Your task to perform on an android device: turn off airplane mode Image 0: 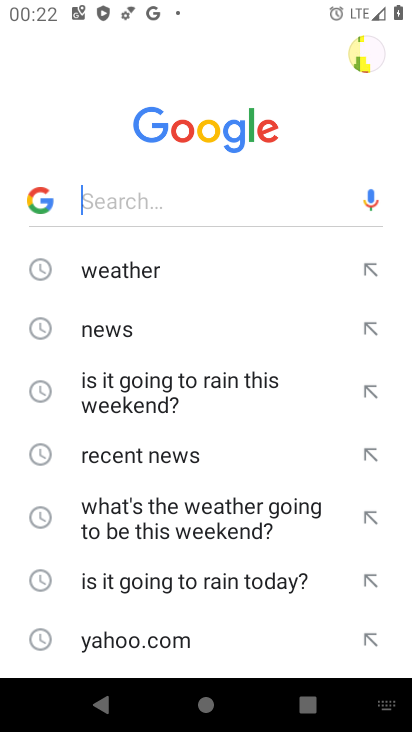
Step 0: press home button
Your task to perform on an android device: turn off airplane mode Image 1: 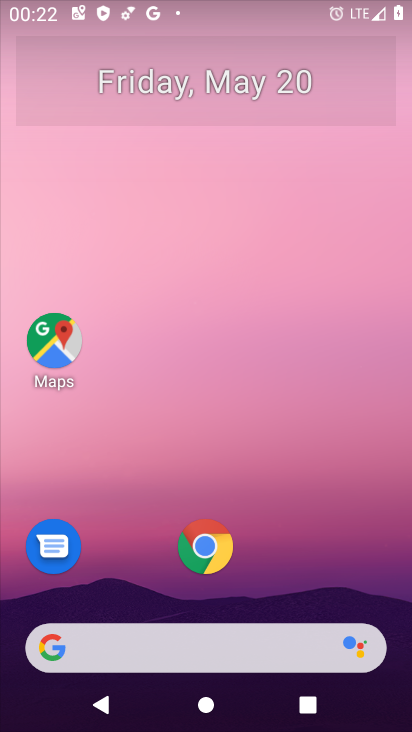
Step 1: drag from (344, 471) to (305, 31)
Your task to perform on an android device: turn off airplane mode Image 2: 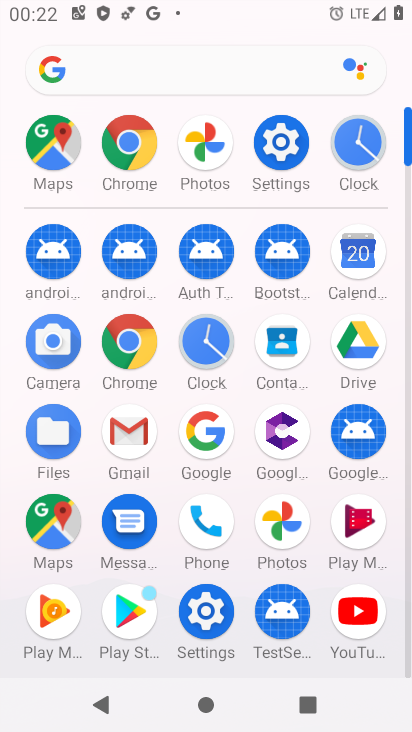
Step 2: click (294, 137)
Your task to perform on an android device: turn off airplane mode Image 3: 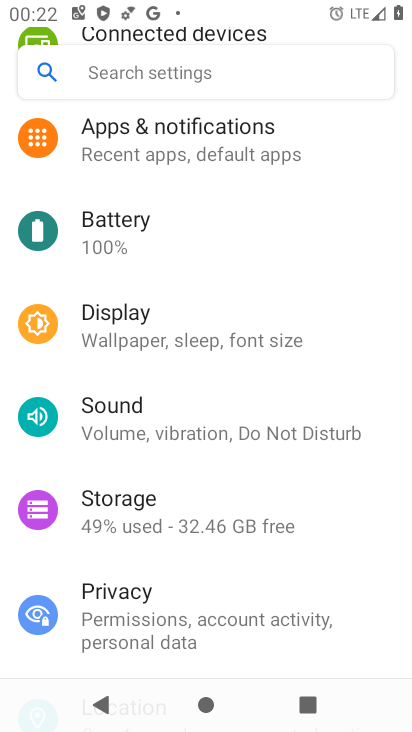
Step 3: drag from (219, 161) to (230, 650)
Your task to perform on an android device: turn off airplane mode Image 4: 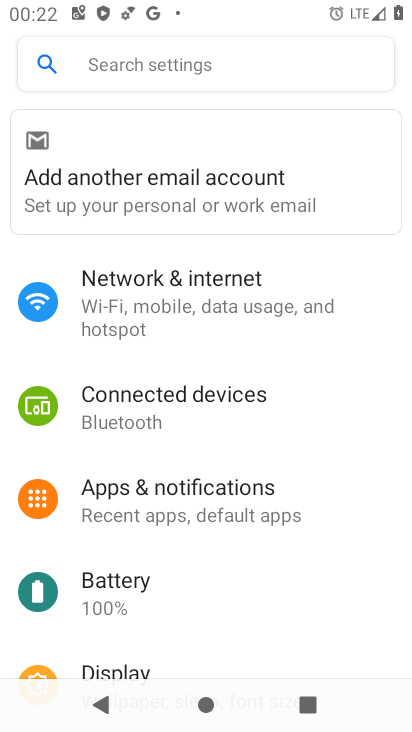
Step 4: click (223, 303)
Your task to perform on an android device: turn off airplane mode Image 5: 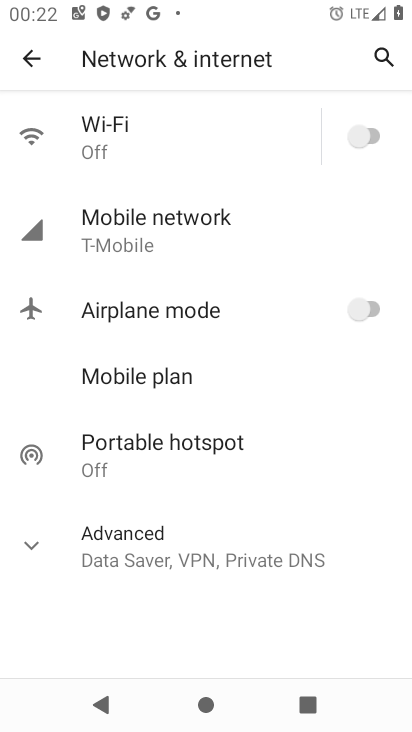
Step 5: task complete